Your task to perform on an android device: Show me productivity apps on the Play Store Image 0: 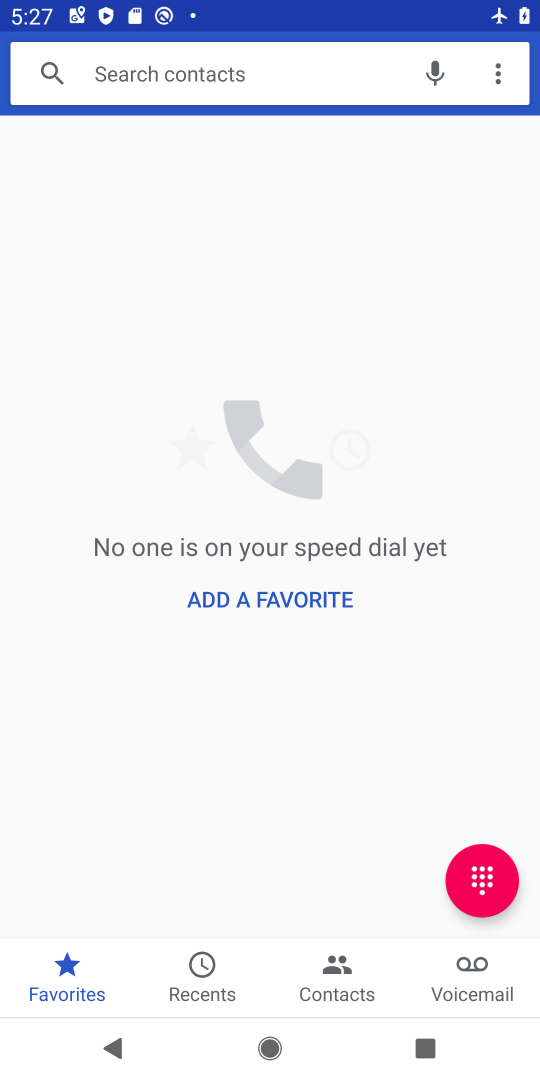
Step 0: press home button
Your task to perform on an android device: Show me productivity apps on the Play Store Image 1: 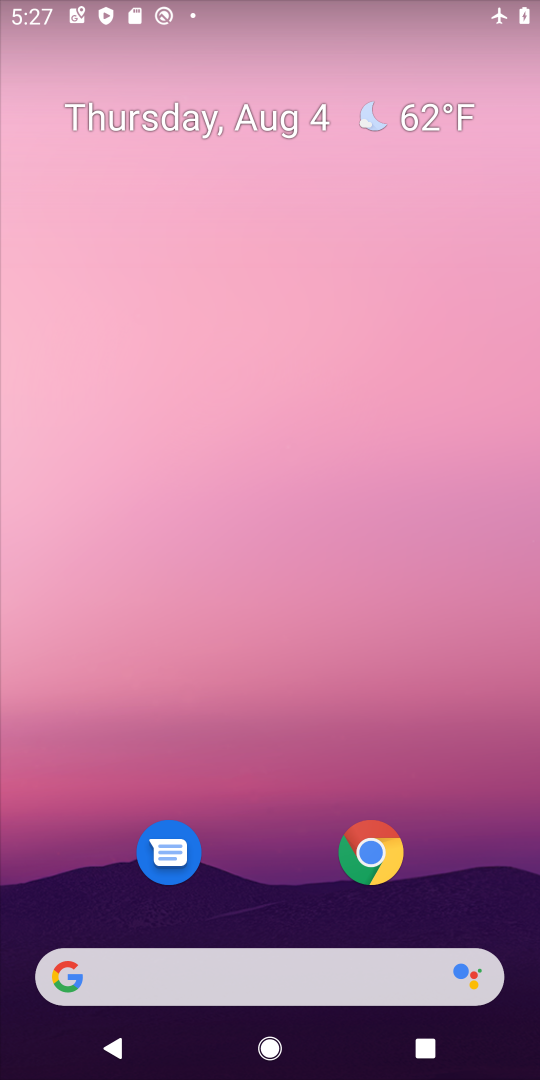
Step 1: drag from (280, 917) to (238, 394)
Your task to perform on an android device: Show me productivity apps on the Play Store Image 2: 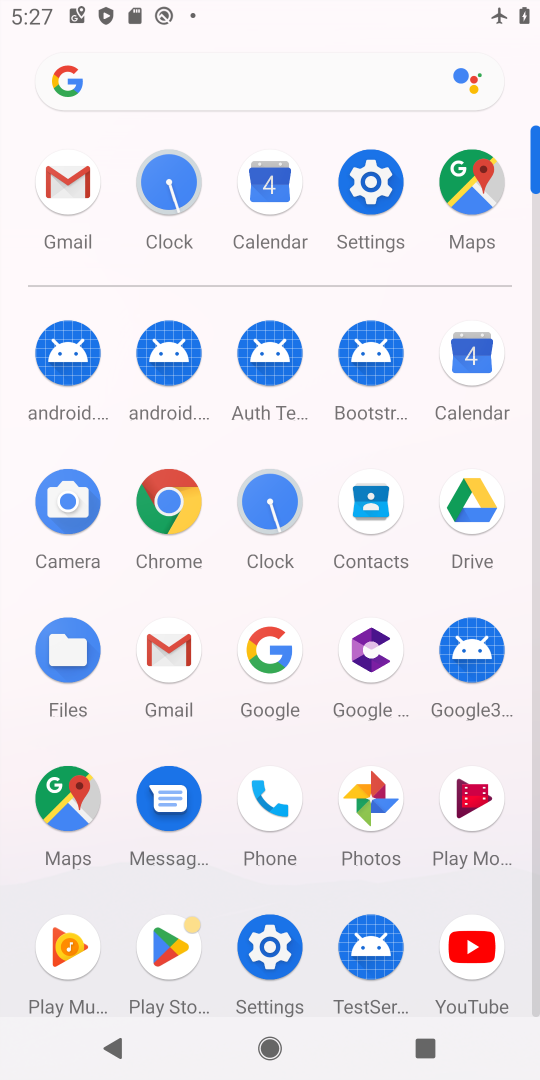
Step 2: click (167, 948)
Your task to perform on an android device: Show me productivity apps on the Play Store Image 3: 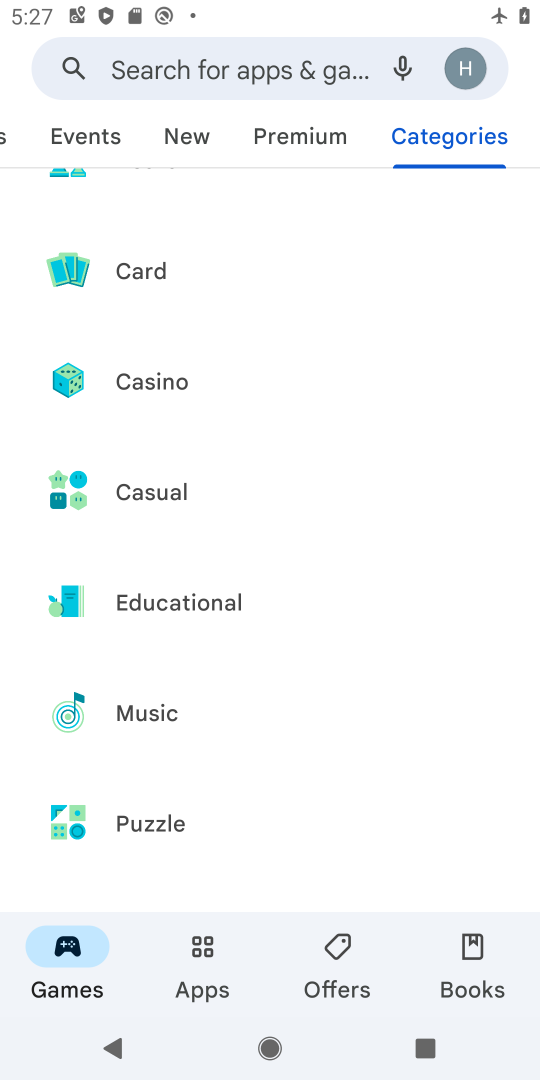
Step 3: drag from (141, 851) to (139, 387)
Your task to perform on an android device: Show me productivity apps on the Play Store Image 4: 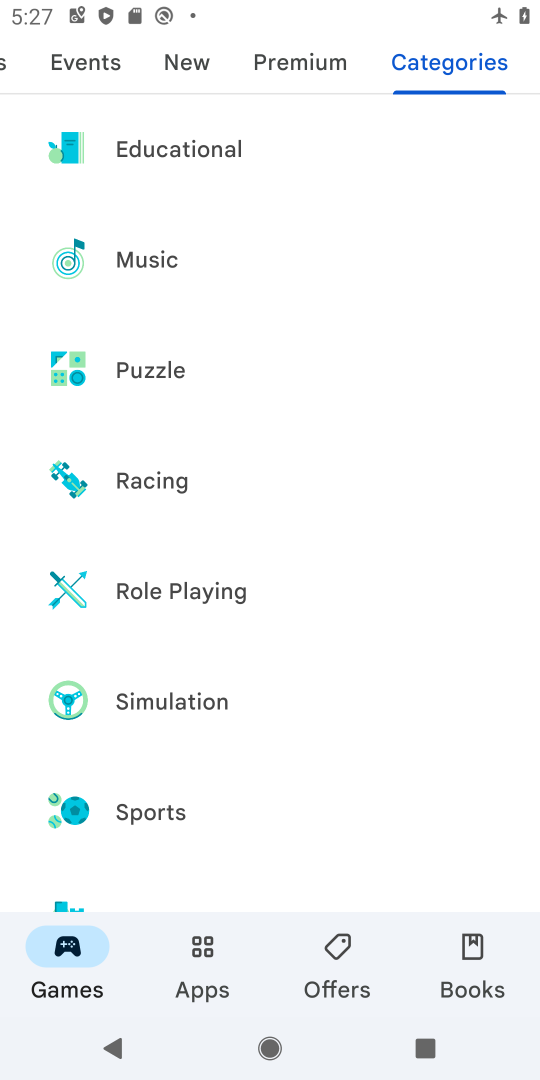
Step 4: drag from (172, 826) to (163, 518)
Your task to perform on an android device: Show me productivity apps on the Play Store Image 5: 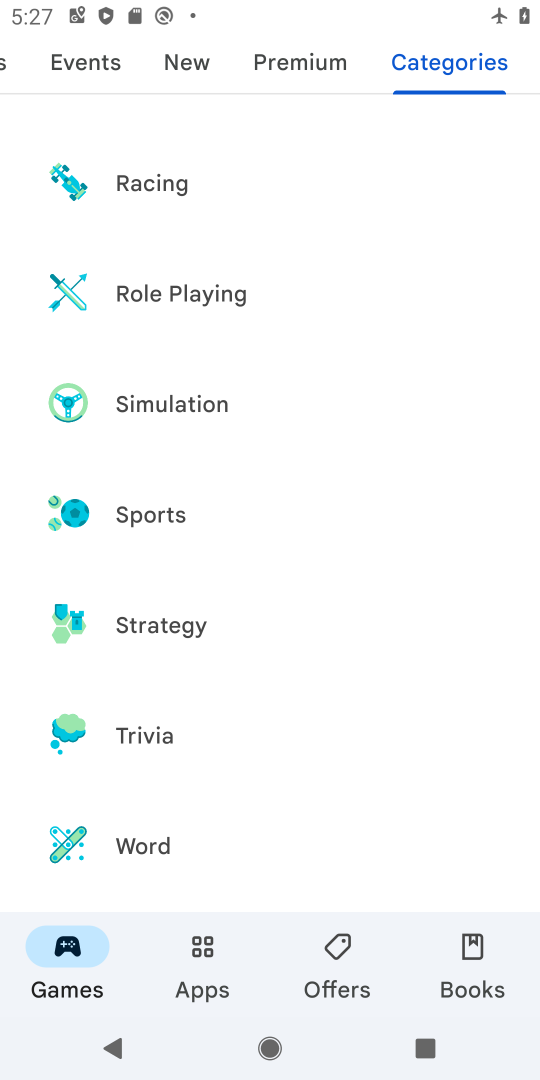
Step 5: drag from (197, 337) to (169, 811)
Your task to perform on an android device: Show me productivity apps on the Play Store Image 6: 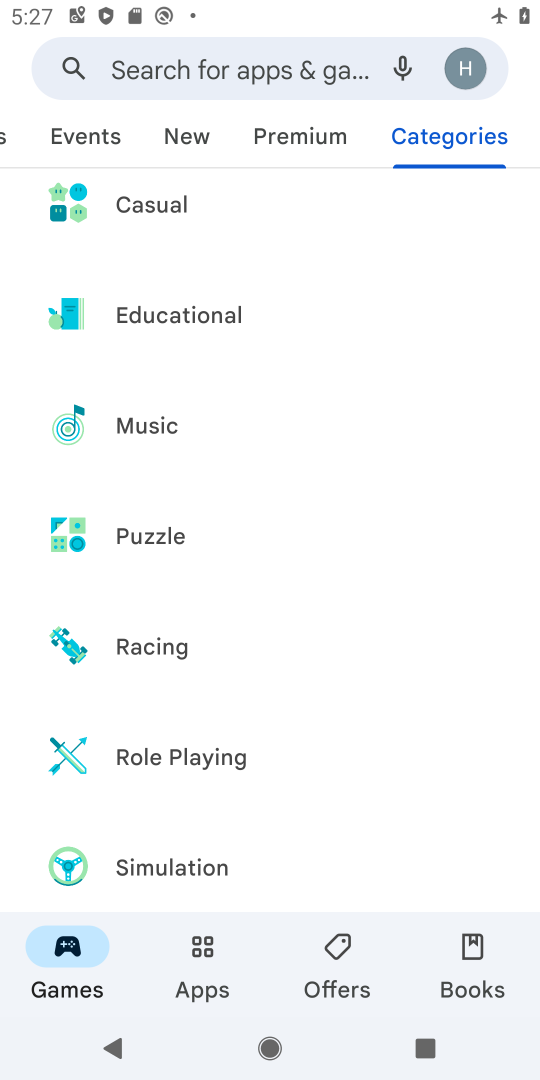
Step 6: drag from (198, 246) to (195, 733)
Your task to perform on an android device: Show me productivity apps on the Play Store Image 7: 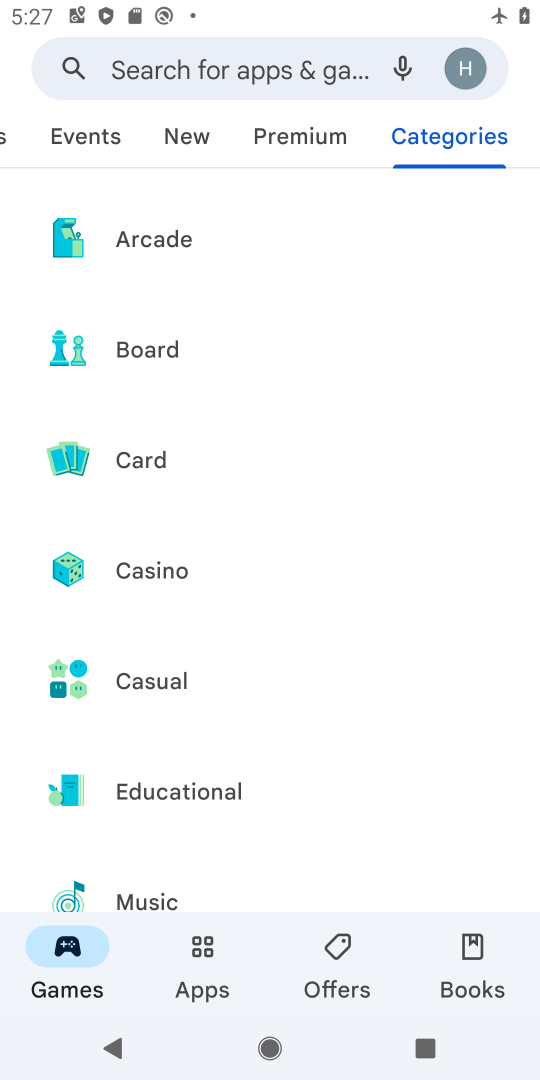
Step 7: drag from (180, 229) to (162, 634)
Your task to perform on an android device: Show me productivity apps on the Play Store Image 8: 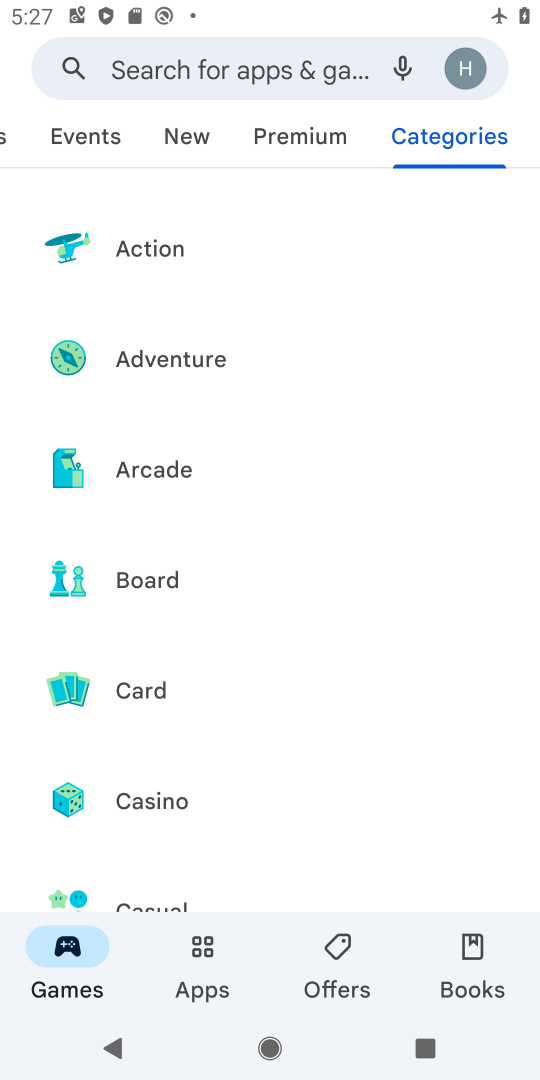
Step 8: click (197, 957)
Your task to perform on an android device: Show me productivity apps on the Play Store Image 9: 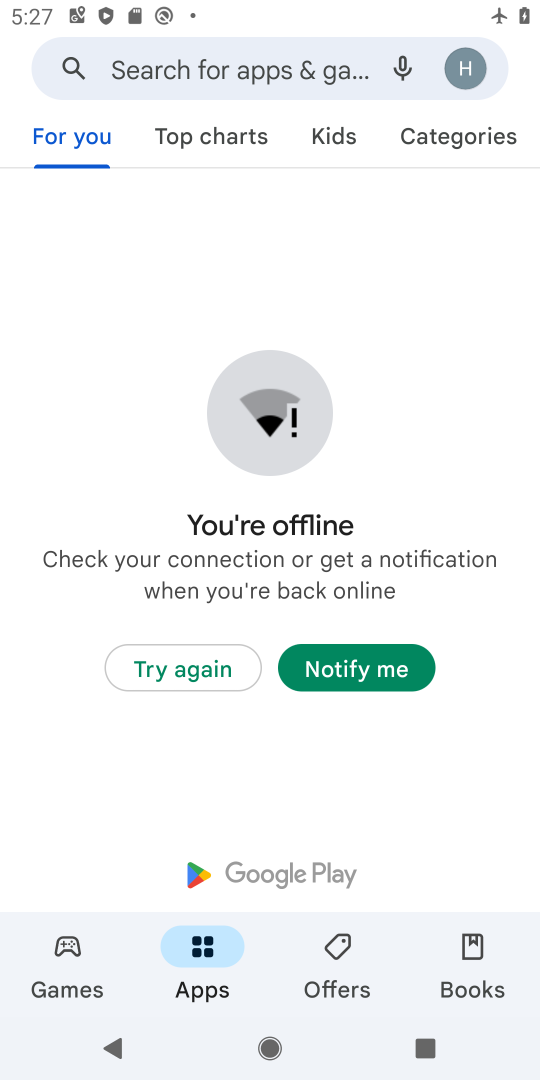
Step 9: click (447, 126)
Your task to perform on an android device: Show me productivity apps on the Play Store Image 10: 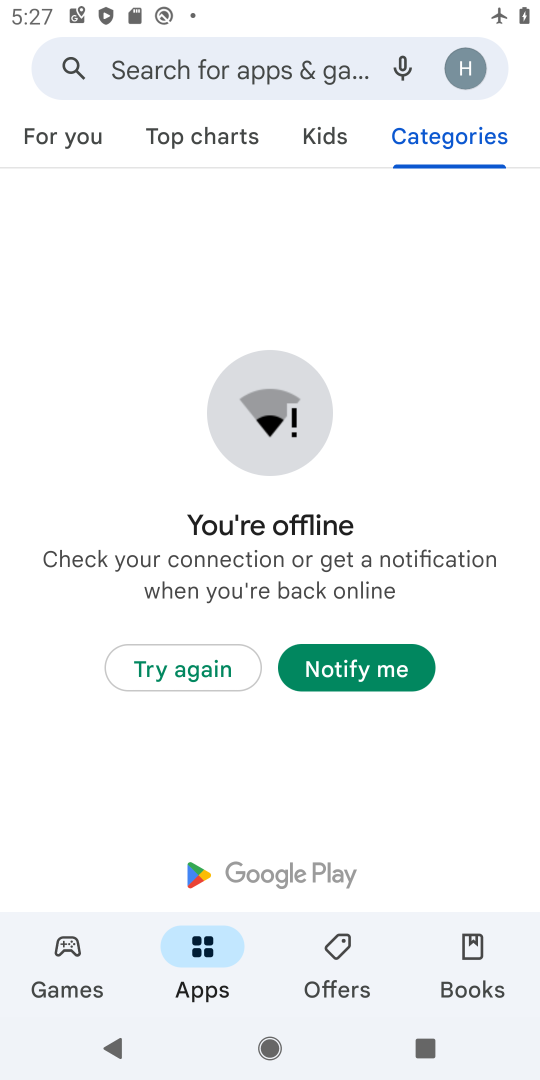
Step 10: task complete